Your task to perform on an android device: show emergency info Image 0: 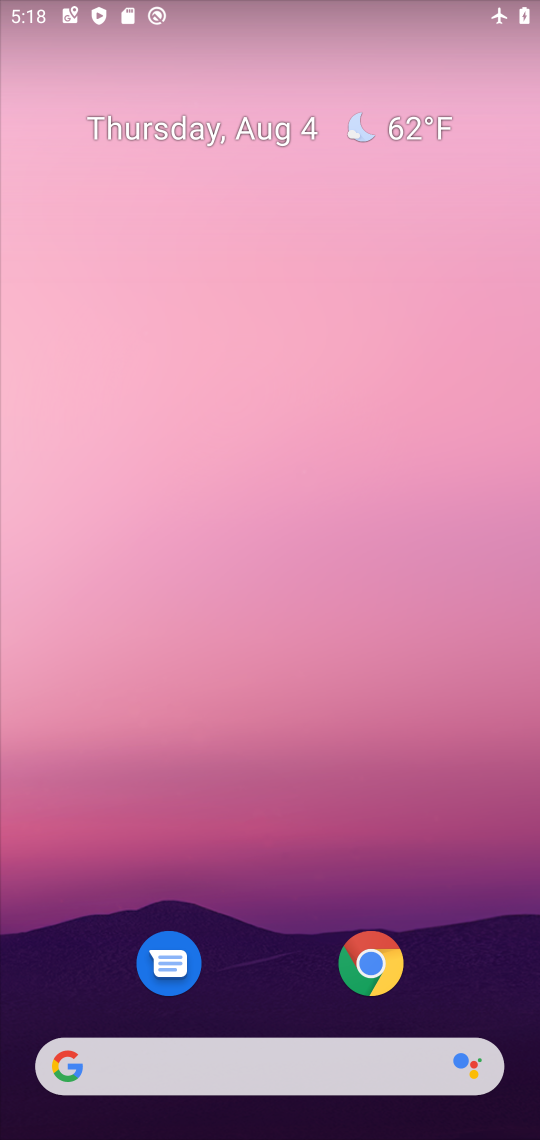
Step 0: drag from (258, 895) to (283, 154)
Your task to perform on an android device: show emergency info Image 1: 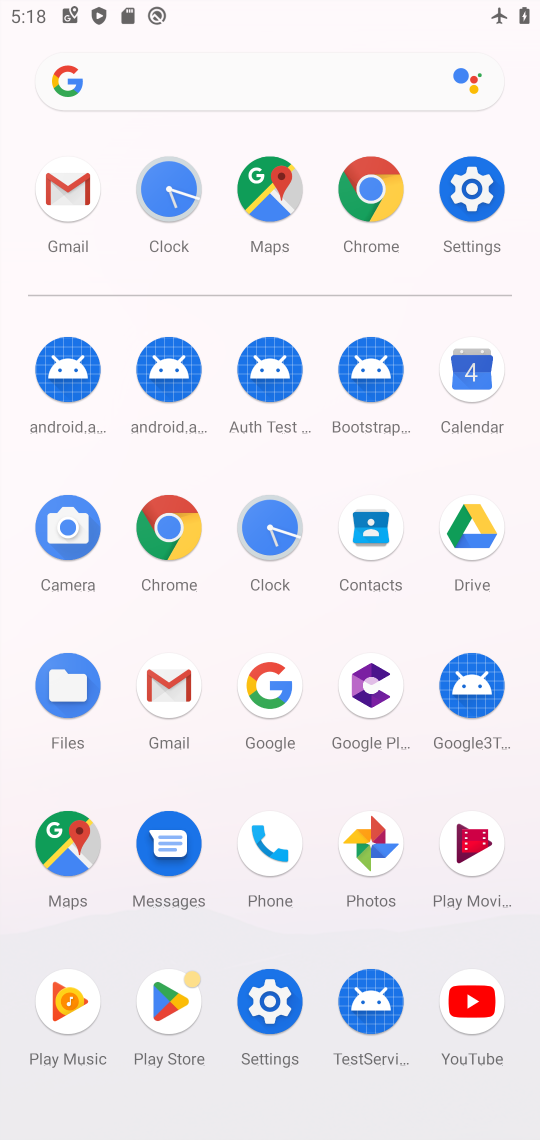
Step 1: click (474, 183)
Your task to perform on an android device: show emergency info Image 2: 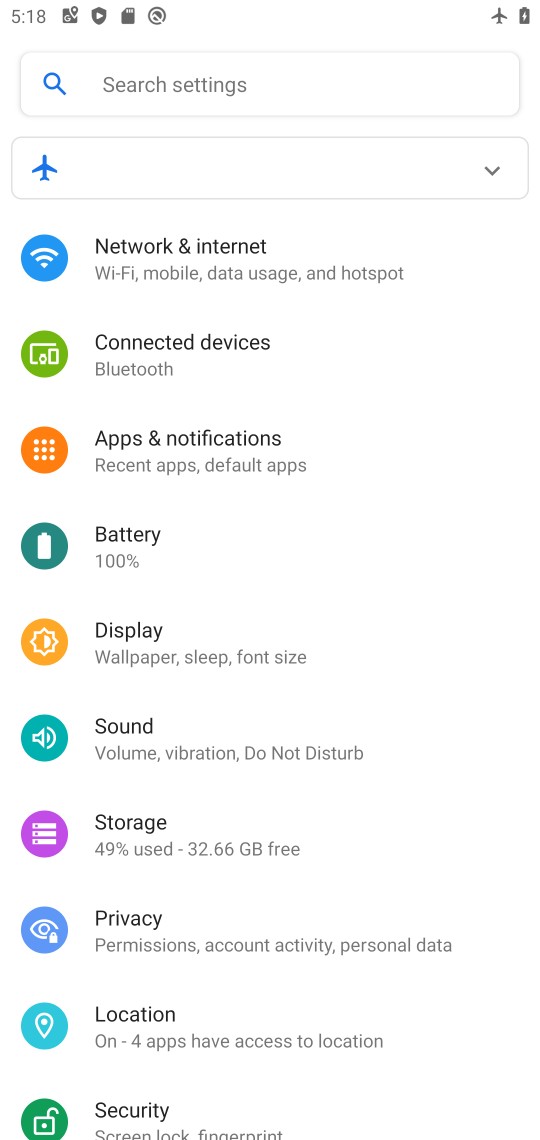
Step 2: drag from (278, 1060) to (289, 285)
Your task to perform on an android device: show emergency info Image 3: 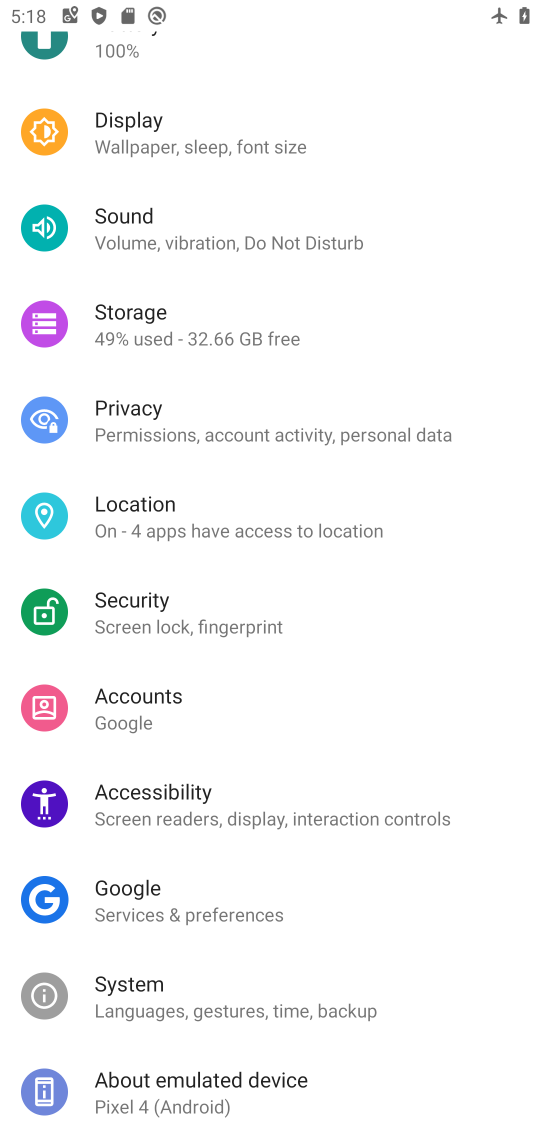
Step 3: click (162, 1077)
Your task to perform on an android device: show emergency info Image 4: 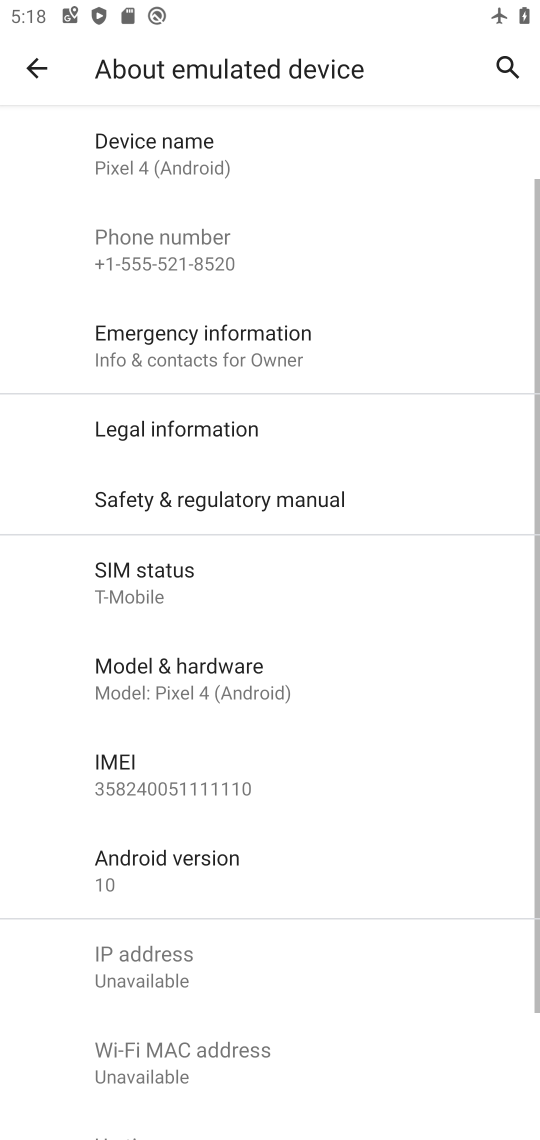
Step 4: click (158, 328)
Your task to perform on an android device: show emergency info Image 5: 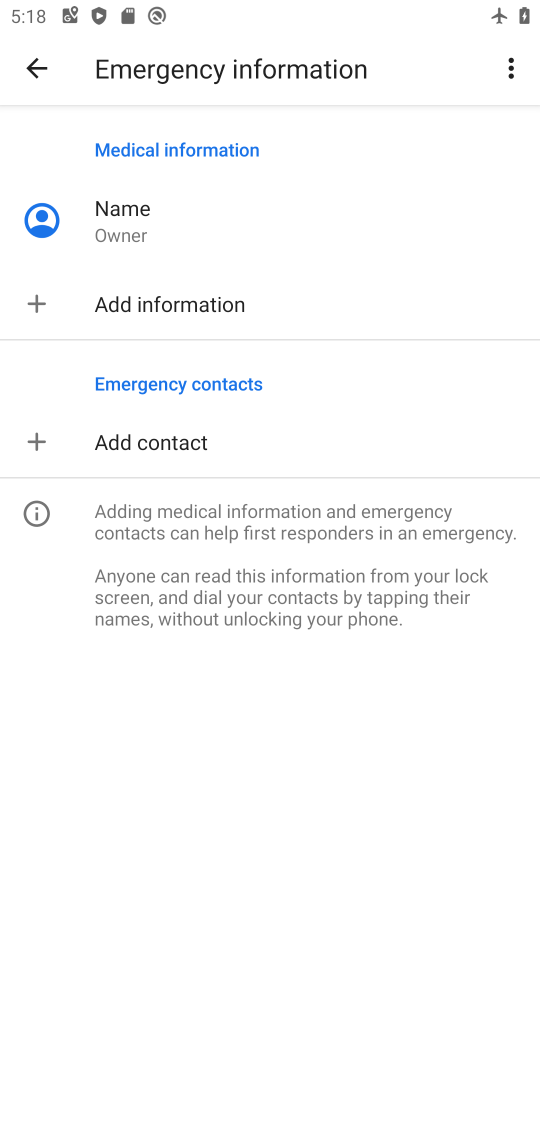
Step 5: task complete